Your task to perform on an android device: Check the news Image 0: 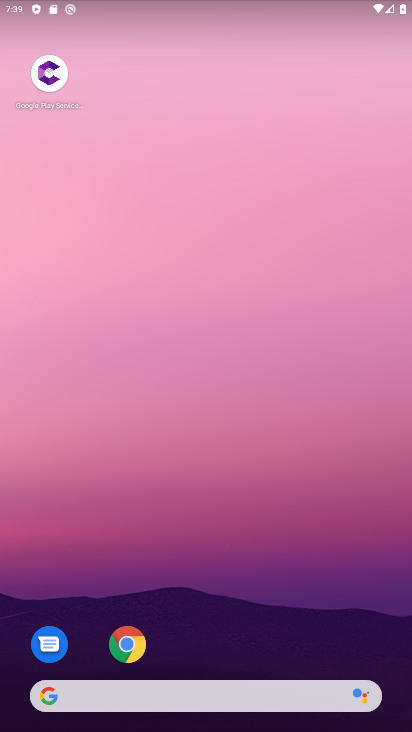
Step 0: drag from (201, 575) to (263, 237)
Your task to perform on an android device: Check the news Image 1: 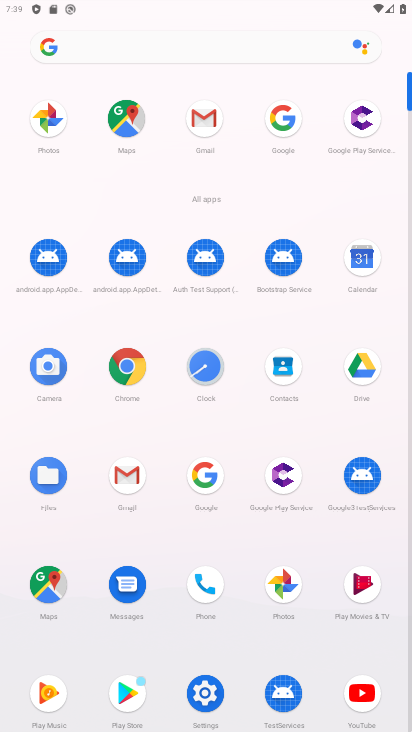
Step 1: click (210, 483)
Your task to perform on an android device: Check the news Image 2: 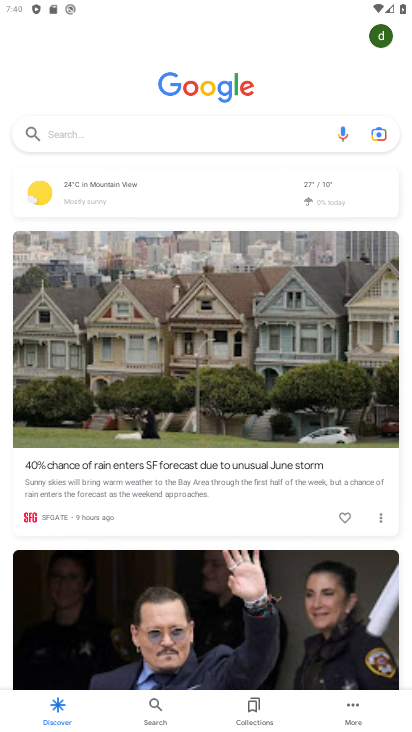
Step 2: click (176, 134)
Your task to perform on an android device: Check the news Image 3: 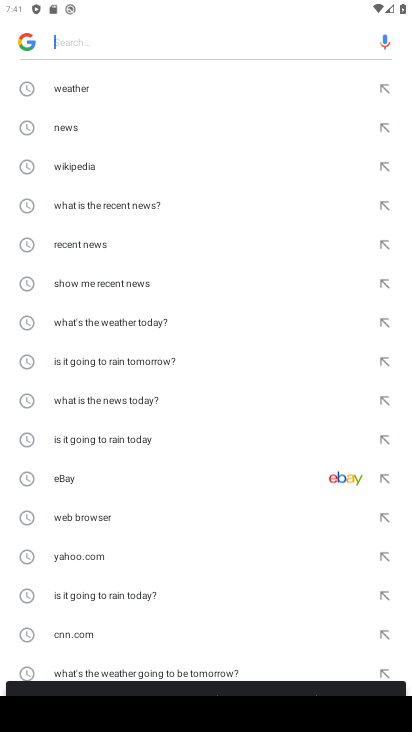
Step 3: click (69, 130)
Your task to perform on an android device: Check the news Image 4: 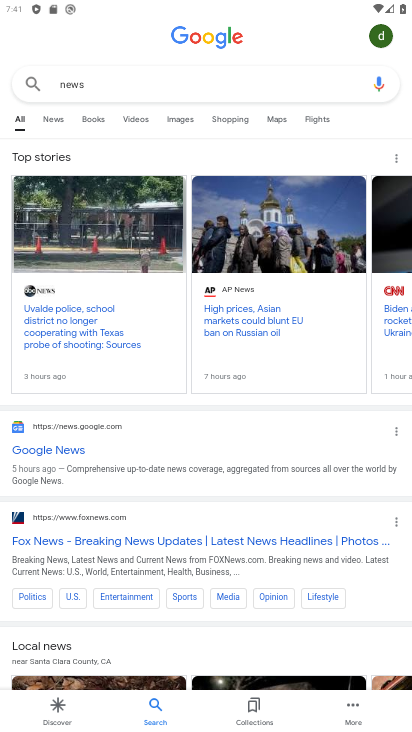
Step 4: task complete